Your task to perform on an android device: Go to location settings Image 0: 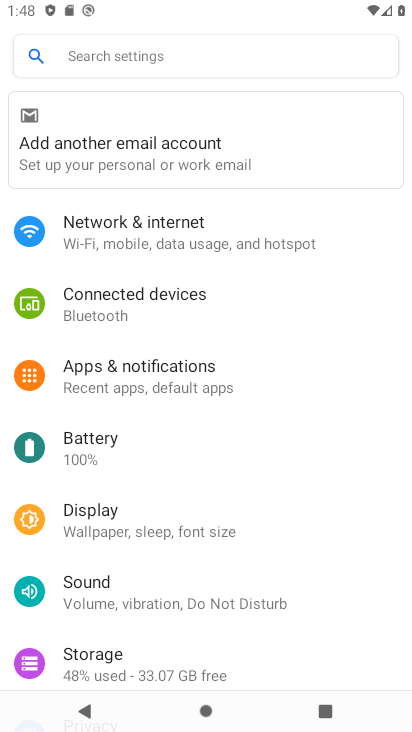
Step 0: drag from (211, 549) to (209, 476)
Your task to perform on an android device: Go to location settings Image 1: 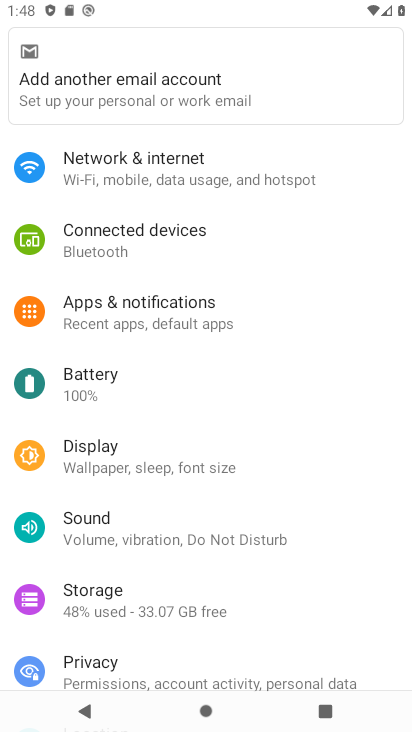
Step 1: drag from (210, 552) to (221, 487)
Your task to perform on an android device: Go to location settings Image 2: 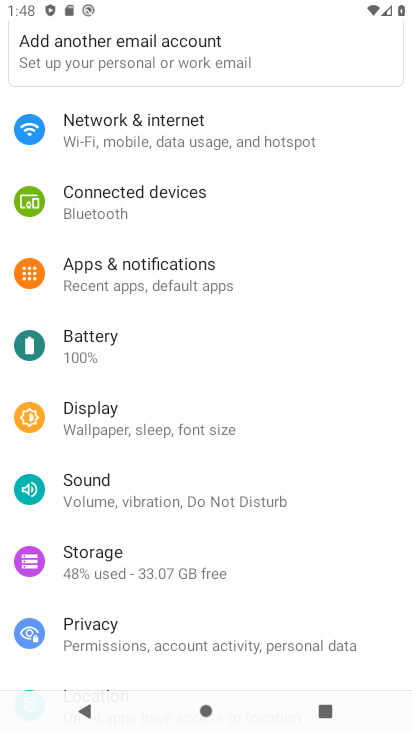
Step 2: drag from (220, 540) to (224, 465)
Your task to perform on an android device: Go to location settings Image 3: 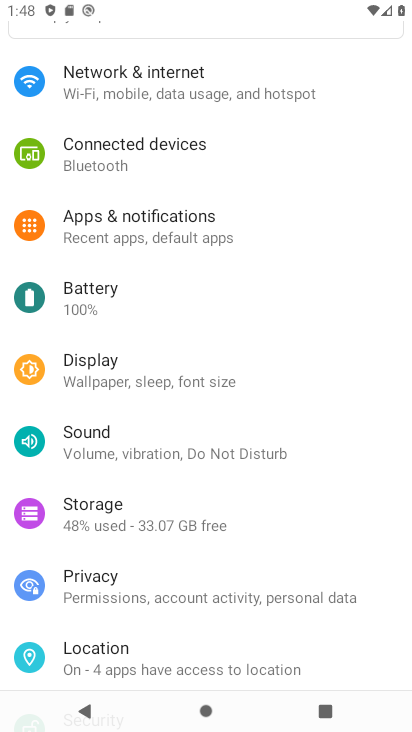
Step 3: drag from (119, 625) to (121, 530)
Your task to perform on an android device: Go to location settings Image 4: 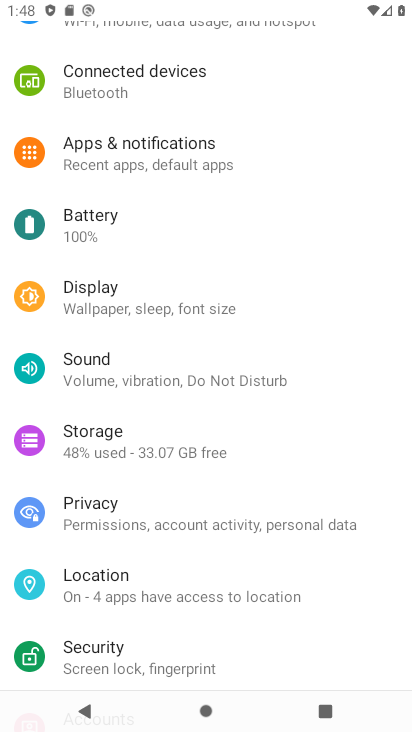
Step 4: click (118, 590)
Your task to perform on an android device: Go to location settings Image 5: 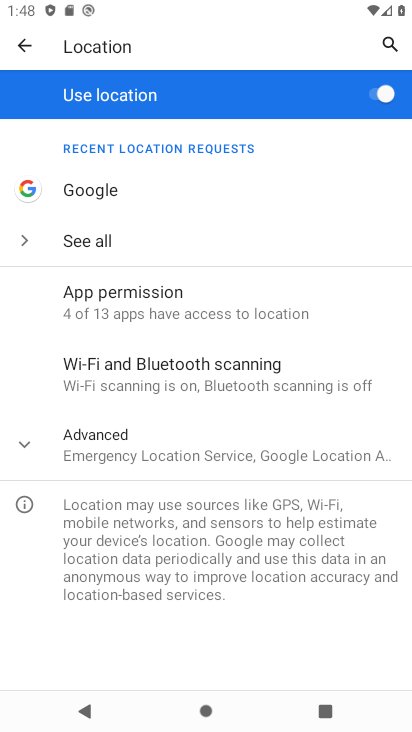
Step 5: task complete